Your task to perform on an android device: move a message to another label in the gmail app Image 0: 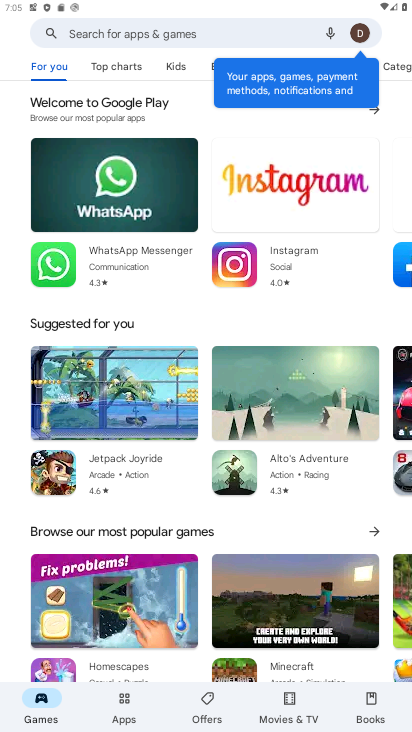
Step 0: press home button
Your task to perform on an android device: move a message to another label in the gmail app Image 1: 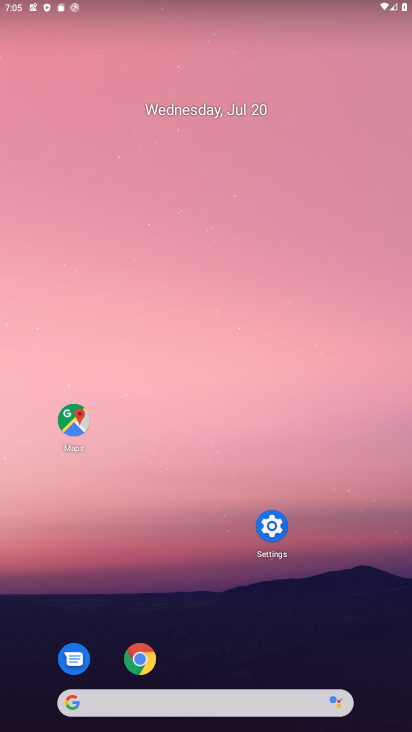
Step 1: drag from (247, 716) to (215, 143)
Your task to perform on an android device: move a message to another label in the gmail app Image 2: 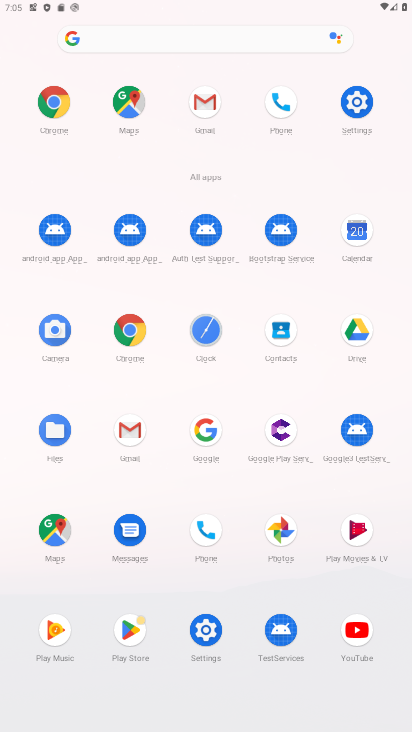
Step 2: drag from (208, 109) to (297, 183)
Your task to perform on an android device: move a message to another label in the gmail app Image 3: 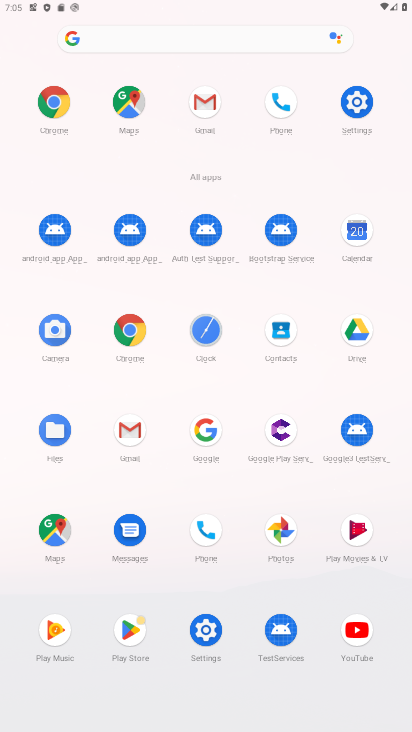
Step 3: drag from (201, 103) to (285, 643)
Your task to perform on an android device: move a message to another label in the gmail app Image 4: 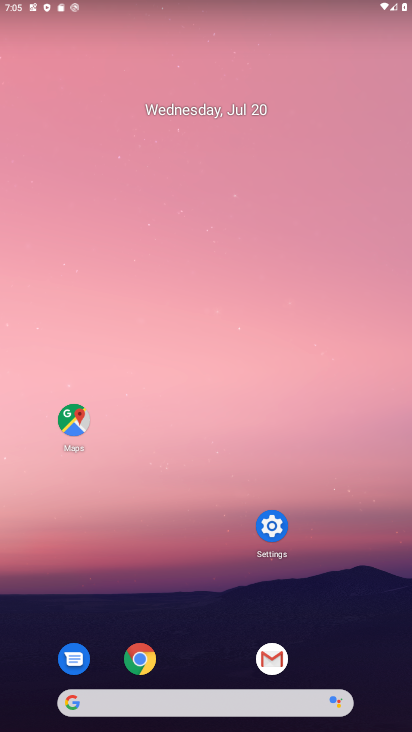
Step 4: click (275, 652)
Your task to perform on an android device: move a message to another label in the gmail app Image 5: 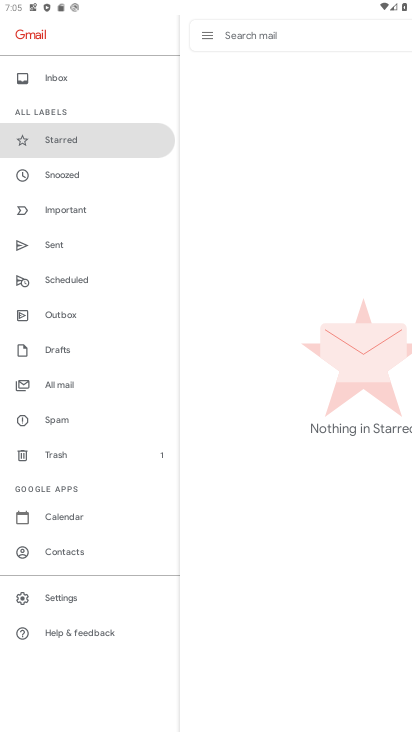
Step 5: click (63, 600)
Your task to perform on an android device: move a message to another label in the gmail app Image 6: 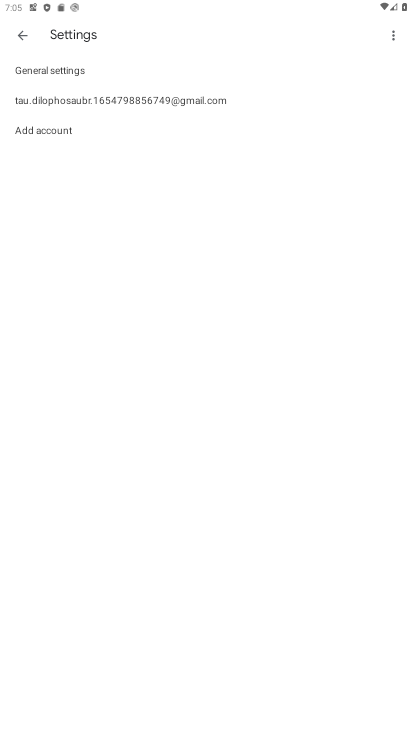
Step 6: click (115, 98)
Your task to perform on an android device: move a message to another label in the gmail app Image 7: 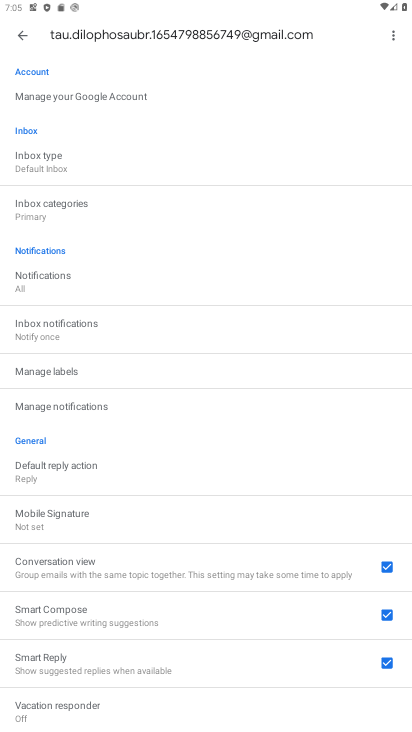
Step 7: click (78, 367)
Your task to perform on an android device: move a message to another label in the gmail app Image 8: 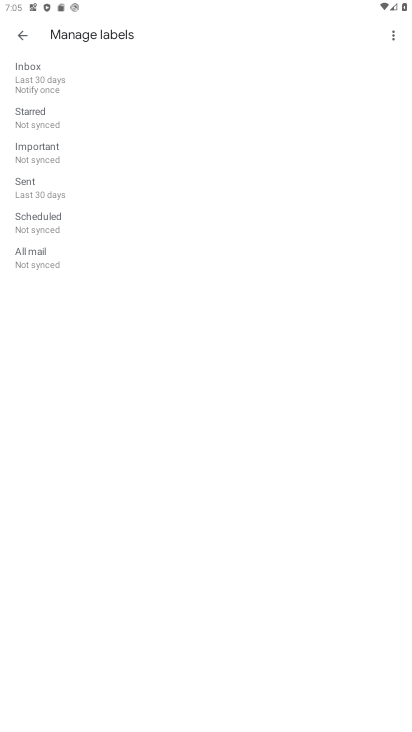
Step 8: click (93, 137)
Your task to perform on an android device: move a message to another label in the gmail app Image 9: 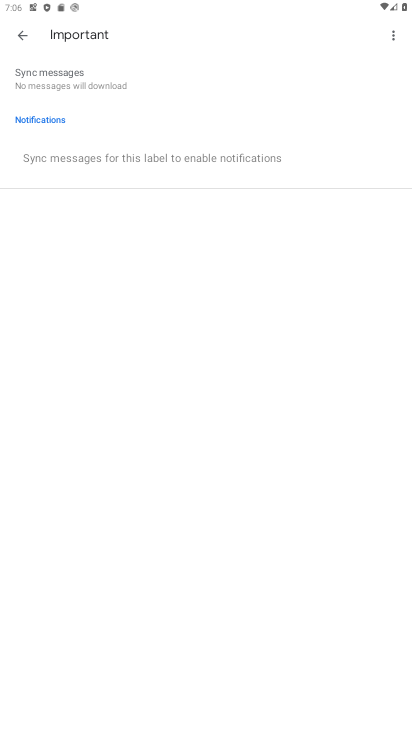
Step 9: task complete